Your task to perform on an android device: What is the news today? Image 0: 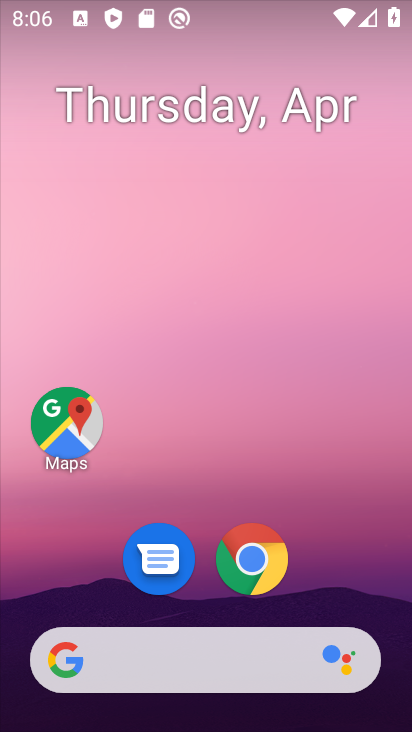
Step 0: click (300, 666)
Your task to perform on an android device: What is the news today? Image 1: 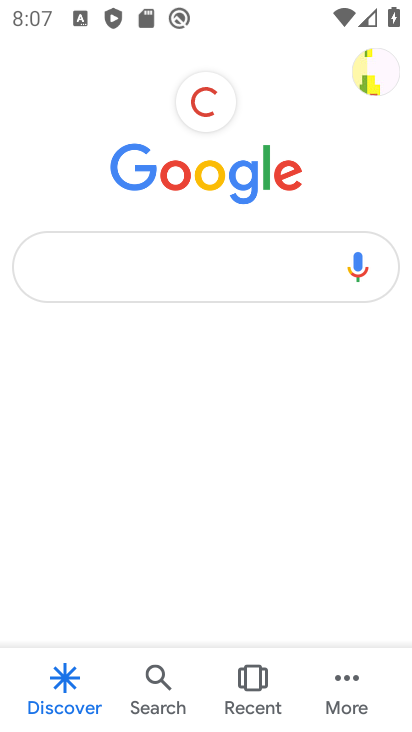
Step 1: click (298, 268)
Your task to perform on an android device: What is the news today? Image 2: 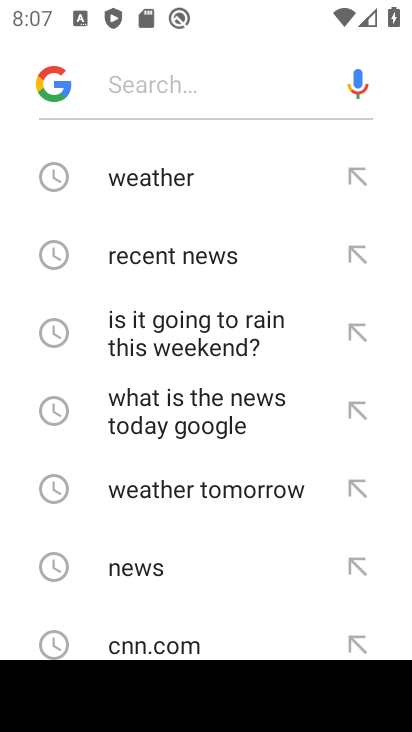
Step 2: type "news today"
Your task to perform on an android device: What is the news today? Image 3: 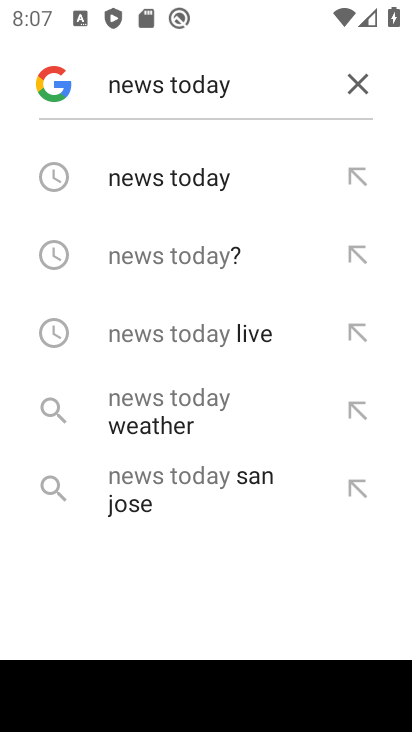
Step 3: click (295, 168)
Your task to perform on an android device: What is the news today? Image 4: 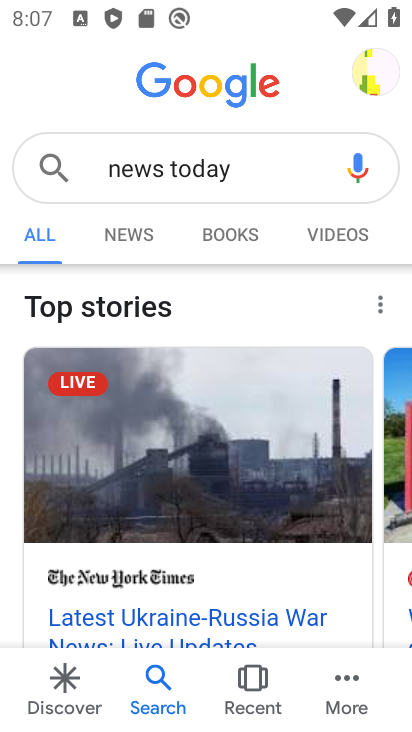
Step 4: task complete